Your task to perform on an android device: Open calendar and show me the fourth week of next month Image 0: 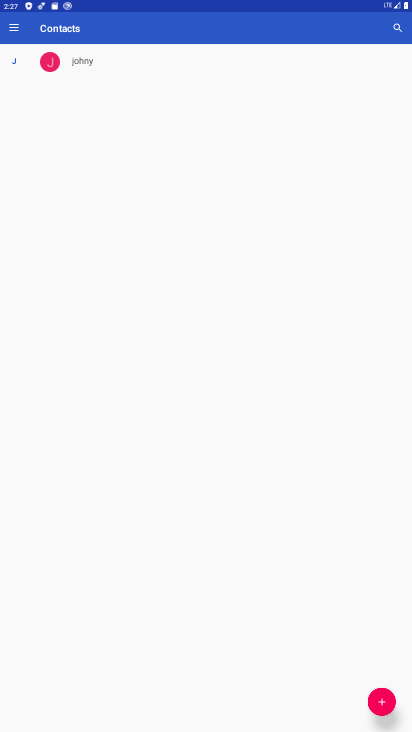
Step 0: drag from (206, 658) to (393, 711)
Your task to perform on an android device: Open calendar and show me the fourth week of next month Image 1: 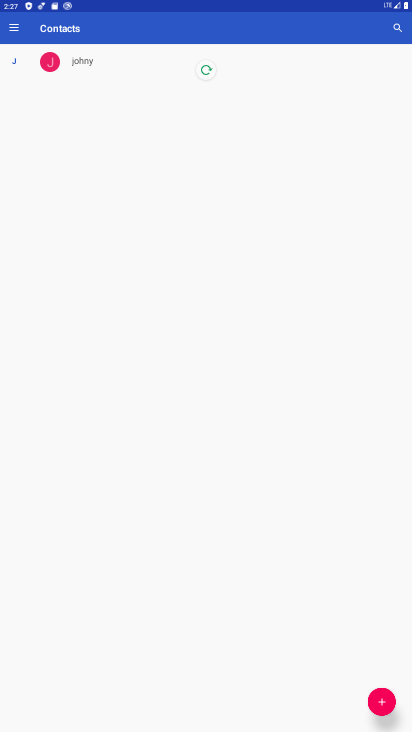
Step 1: press home button
Your task to perform on an android device: Open calendar and show me the fourth week of next month Image 2: 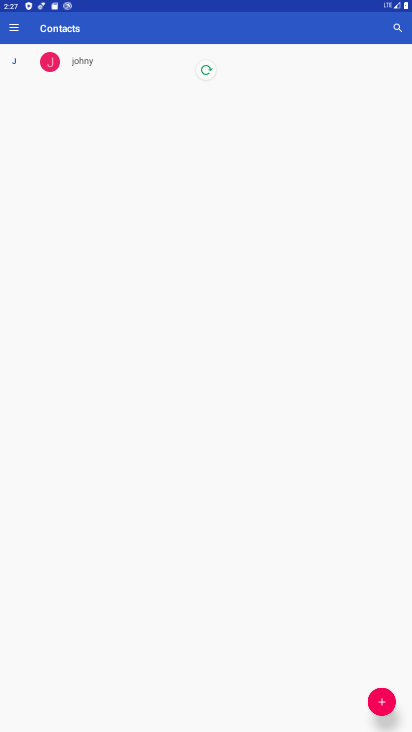
Step 2: drag from (393, 711) to (401, 567)
Your task to perform on an android device: Open calendar and show me the fourth week of next month Image 3: 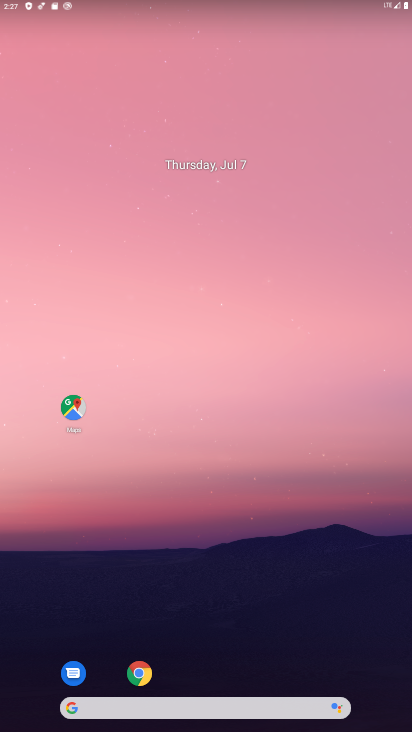
Step 3: drag from (313, 639) to (336, 82)
Your task to perform on an android device: Open calendar and show me the fourth week of next month Image 4: 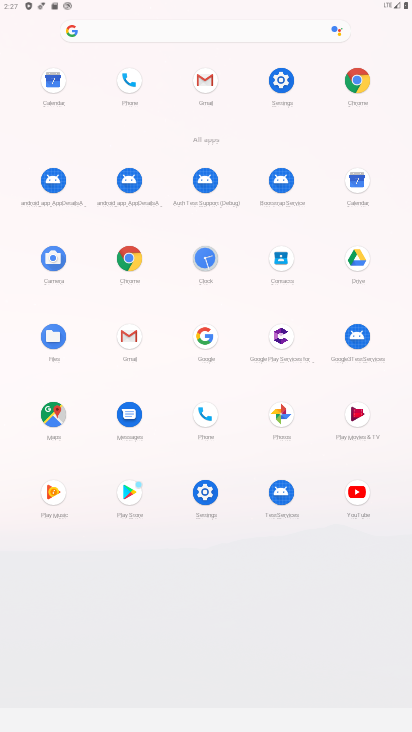
Step 4: click (350, 180)
Your task to perform on an android device: Open calendar and show me the fourth week of next month Image 5: 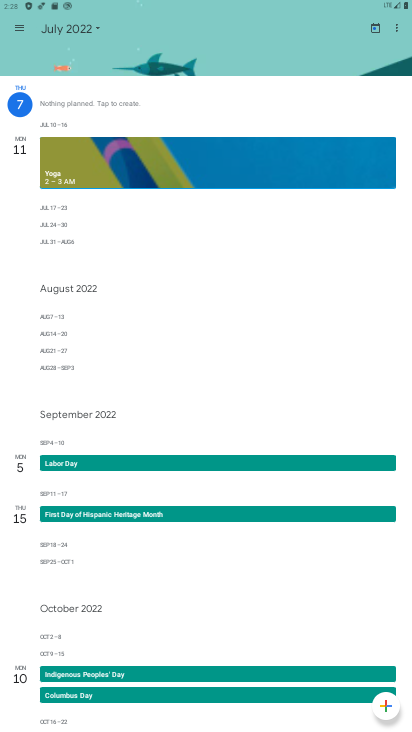
Step 5: click (12, 93)
Your task to perform on an android device: Open calendar and show me the fourth week of next month Image 6: 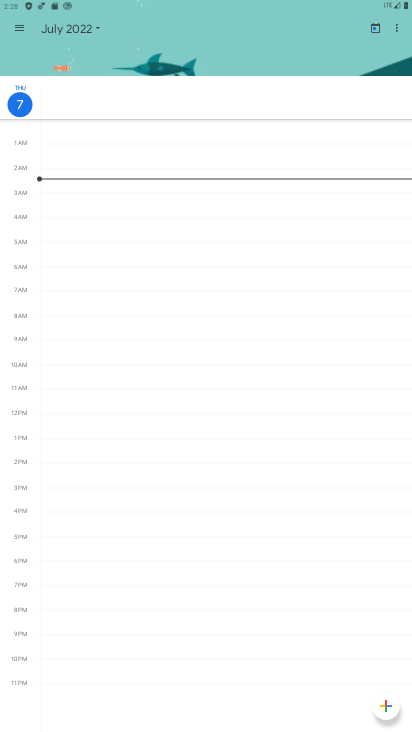
Step 6: click (12, 92)
Your task to perform on an android device: Open calendar and show me the fourth week of next month Image 7: 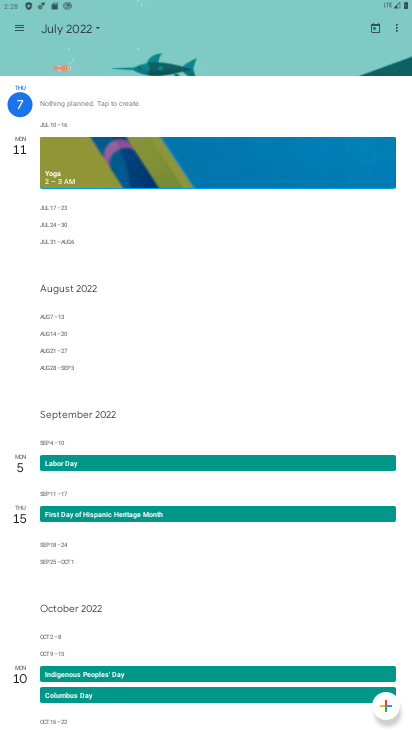
Step 7: drag from (222, 132) to (285, 4)
Your task to perform on an android device: Open calendar and show me the fourth week of next month Image 8: 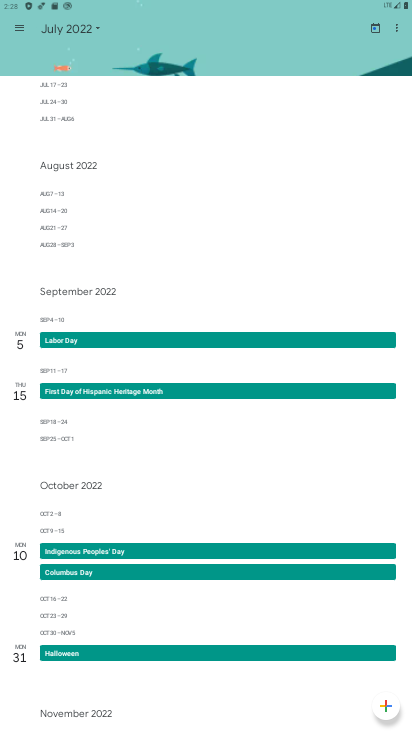
Step 8: press back button
Your task to perform on an android device: Open calendar and show me the fourth week of next month Image 9: 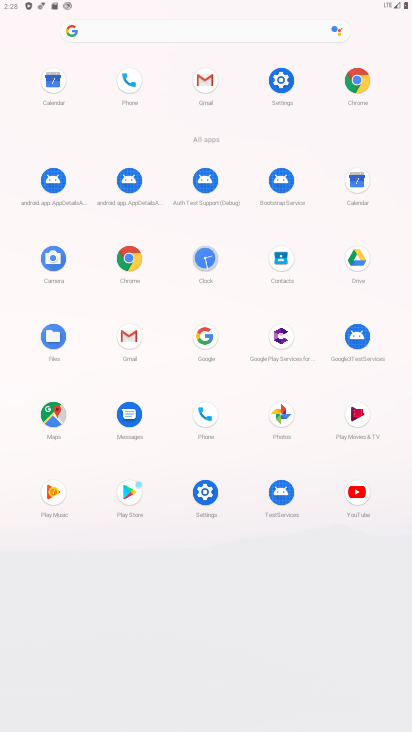
Step 9: click (352, 182)
Your task to perform on an android device: Open calendar and show me the fourth week of next month Image 10: 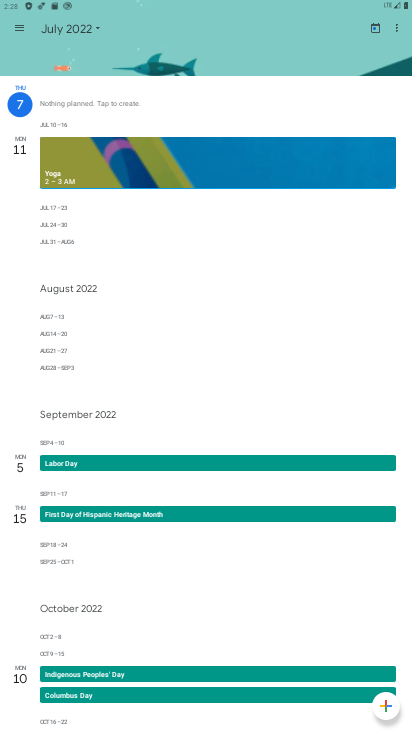
Step 10: click (84, 28)
Your task to perform on an android device: Open calendar and show me the fourth week of next month Image 11: 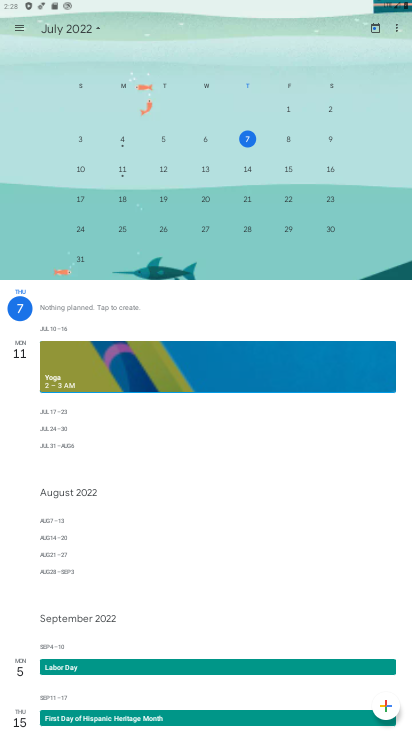
Step 11: click (240, 138)
Your task to perform on an android device: Open calendar and show me the fourth week of next month Image 12: 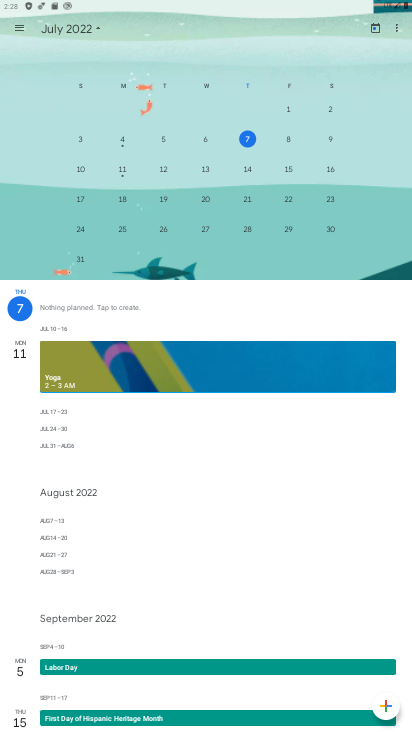
Step 12: drag from (331, 198) to (29, 221)
Your task to perform on an android device: Open calendar and show me the fourth week of next month Image 13: 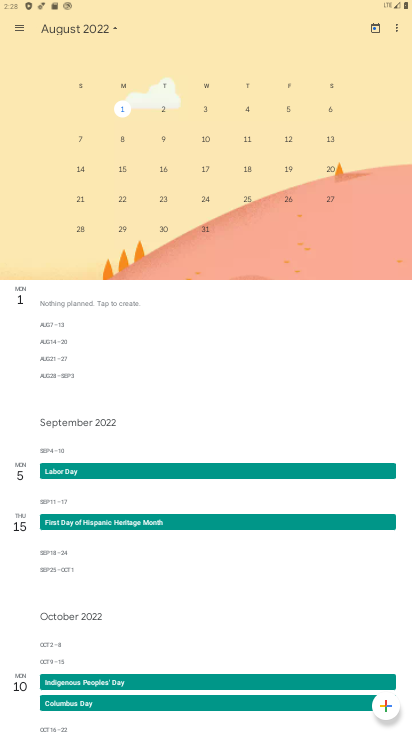
Step 13: click (246, 193)
Your task to perform on an android device: Open calendar and show me the fourth week of next month Image 14: 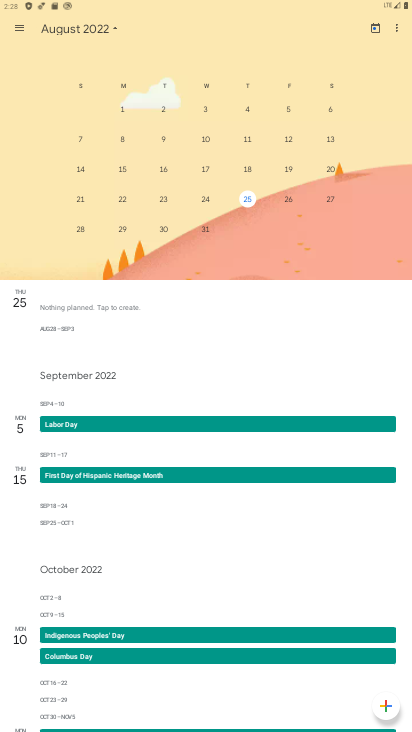
Step 14: task complete